Your task to perform on an android device: check battery use Image 0: 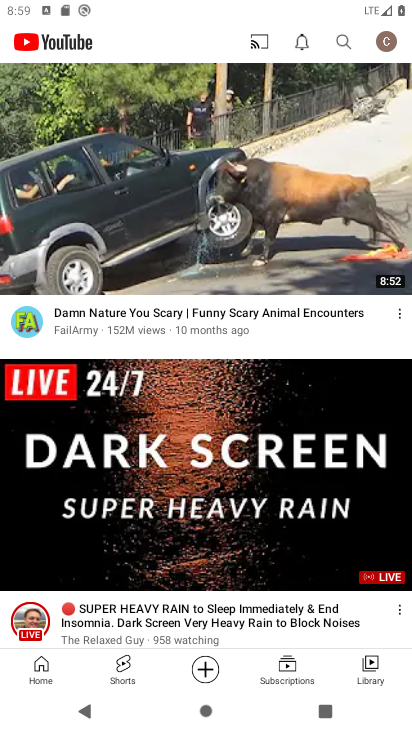
Step 0: press home button
Your task to perform on an android device: check battery use Image 1: 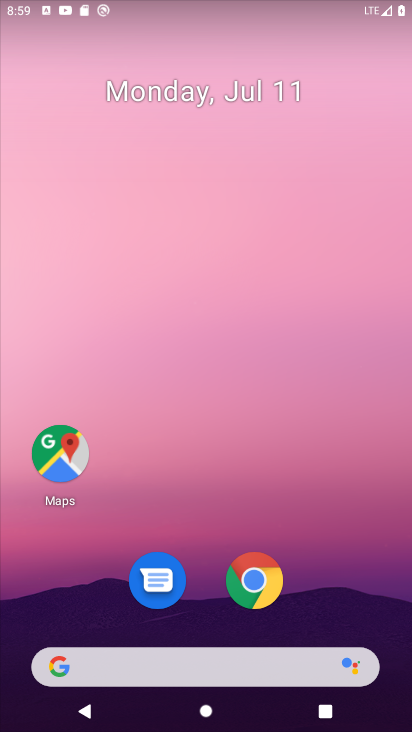
Step 1: drag from (214, 406) to (239, 41)
Your task to perform on an android device: check battery use Image 2: 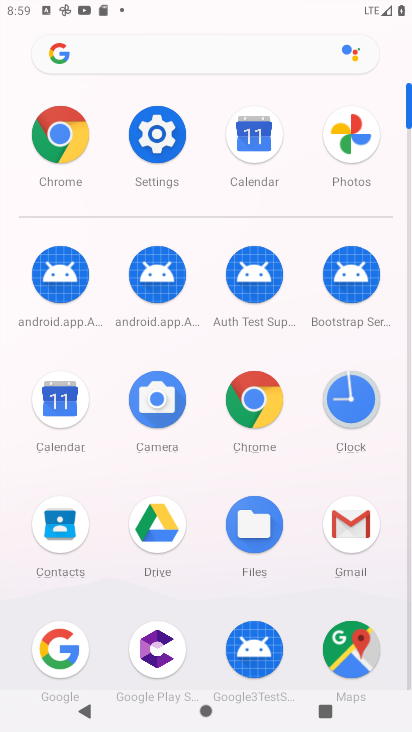
Step 2: click (144, 121)
Your task to perform on an android device: check battery use Image 3: 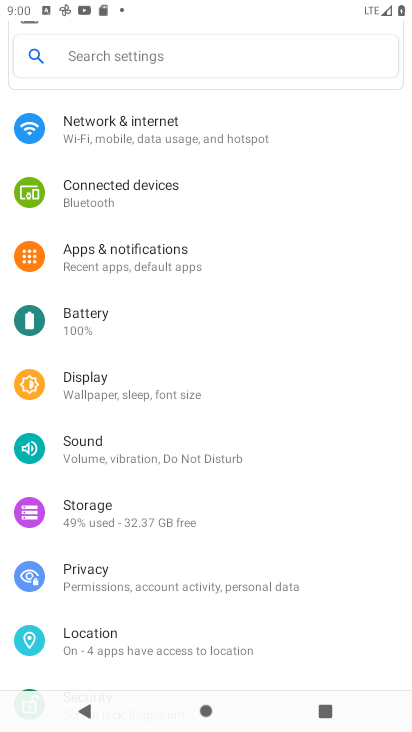
Step 3: click (98, 316)
Your task to perform on an android device: check battery use Image 4: 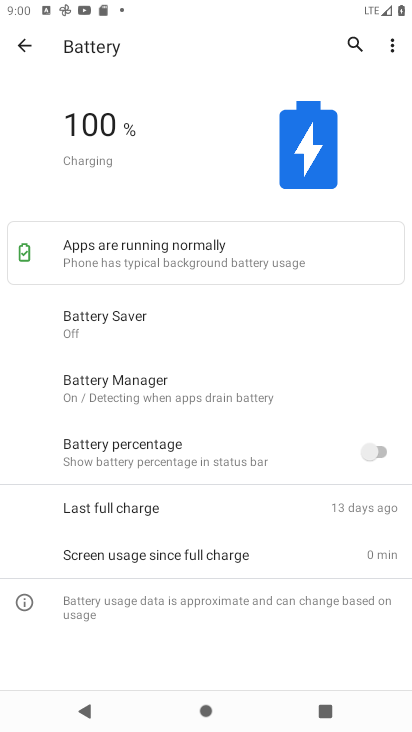
Step 4: click (390, 50)
Your task to perform on an android device: check battery use Image 5: 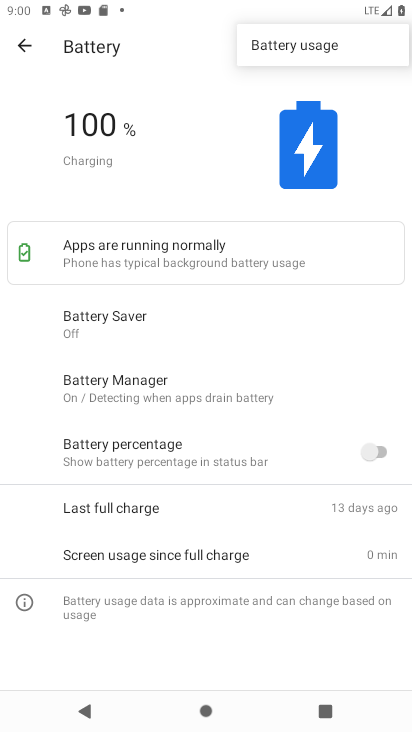
Step 5: click (328, 53)
Your task to perform on an android device: check battery use Image 6: 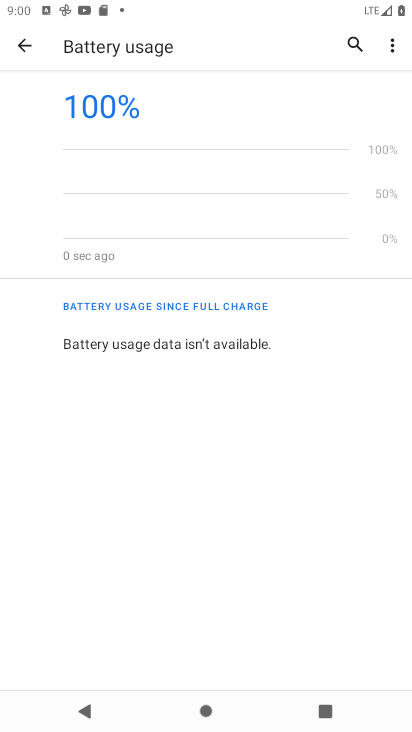
Step 6: task complete